Your task to perform on an android device: toggle pop-ups in chrome Image 0: 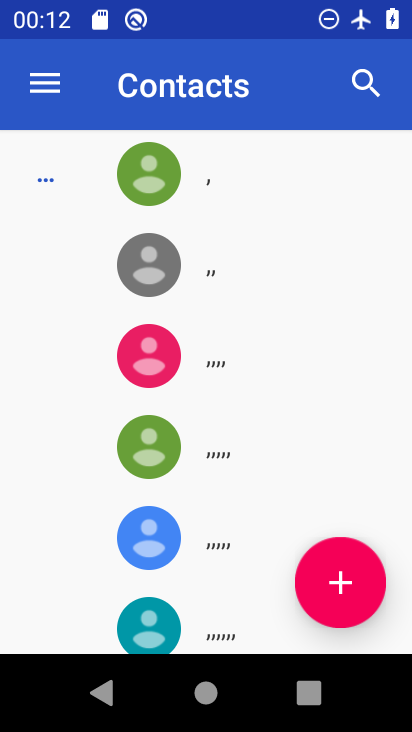
Step 0: task complete